Your task to perform on an android device: turn off notifications in google photos Image 0: 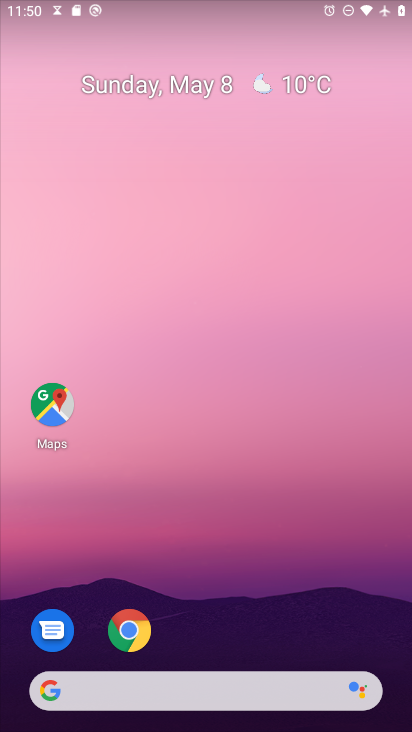
Step 0: drag from (193, 682) to (346, 250)
Your task to perform on an android device: turn off notifications in google photos Image 1: 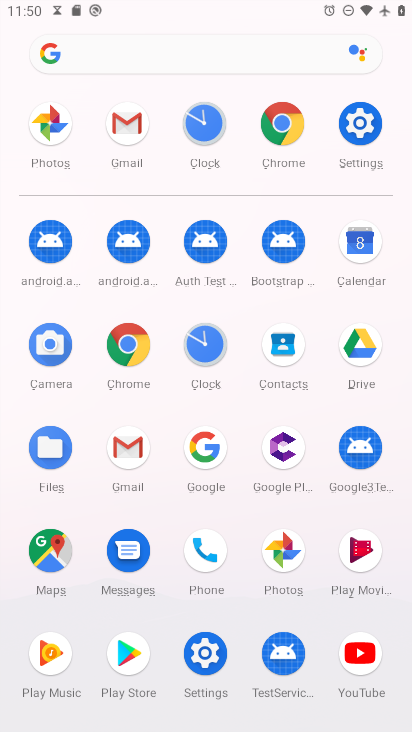
Step 1: click (284, 556)
Your task to perform on an android device: turn off notifications in google photos Image 2: 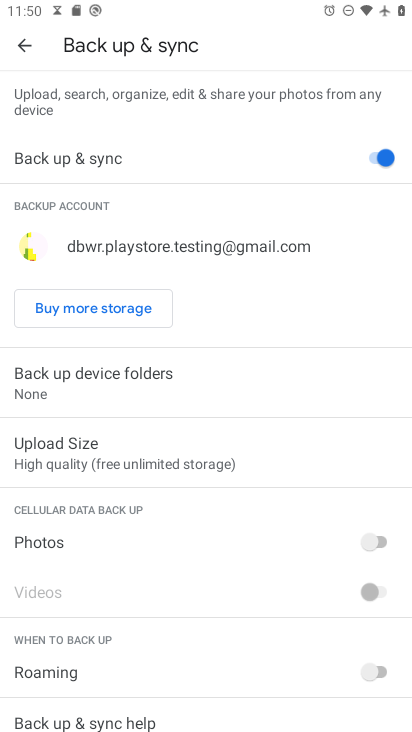
Step 2: drag from (165, 580) to (258, 282)
Your task to perform on an android device: turn off notifications in google photos Image 3: 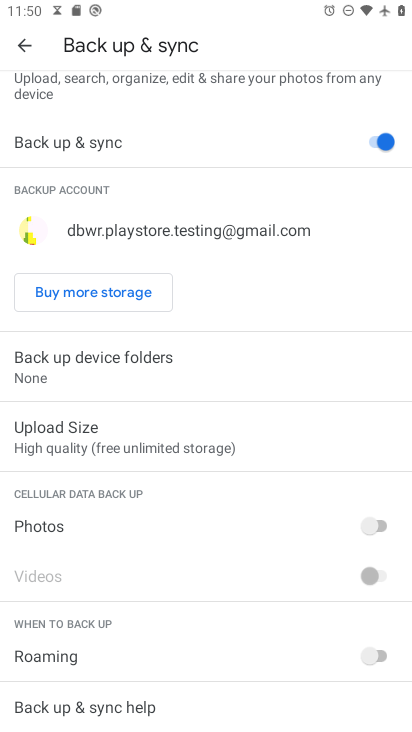
Step 3: click (28, 41)
Your task to perform on an android device: turn off notifications in google photos Image 4: 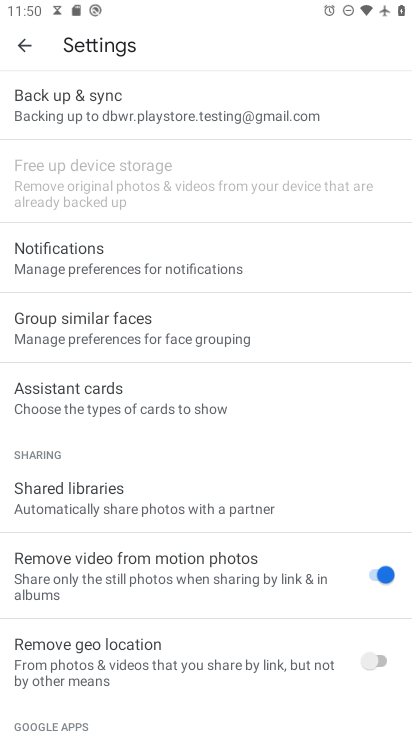
Step 4: click (145, 265)
Your task to perform on an android device: turn off notifications in google photos Image 5: 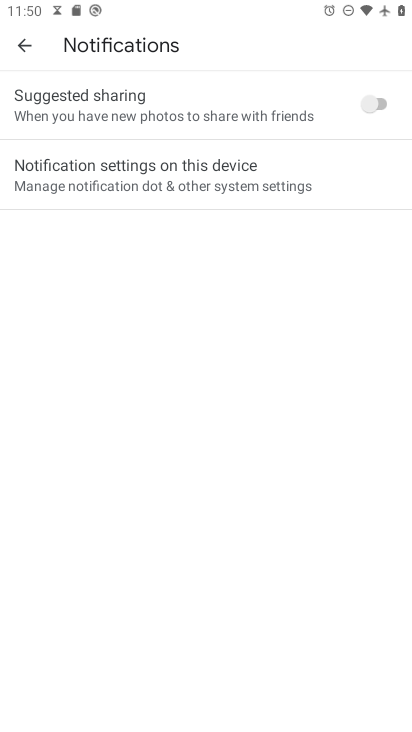
Step 5: click (224, 182)
Your task to perform on an android device: turn off notifications in google photos Image 6: 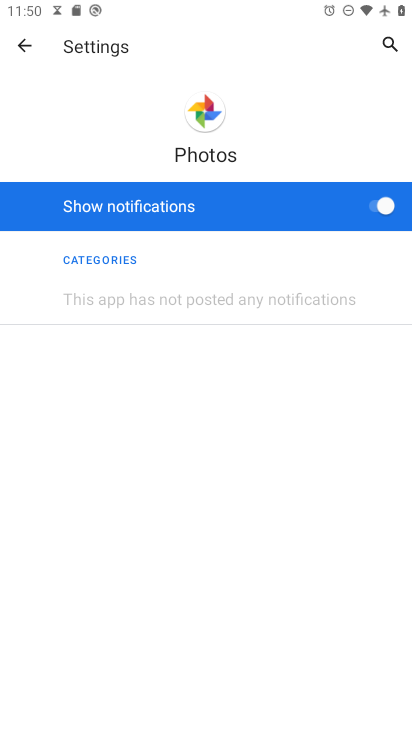
Step 6: click (381, 209)
Your task to perform on an android device: turn off notifications in google photos Image 7: 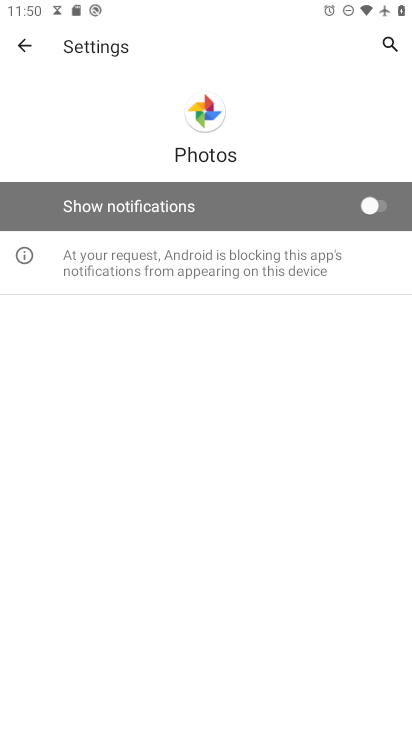
Step 7: task complete